Your task to perform on an android device: Search for seafood restaurants on Google Maps Image 0: 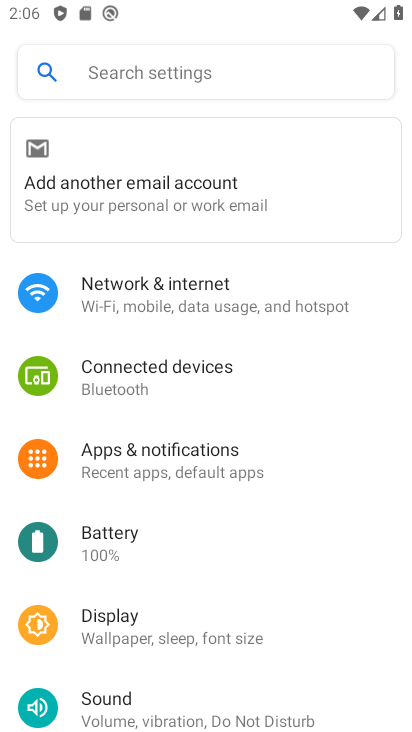
Step 0: press home button
Your task to perform on an android device: Search for seafood restaurants on Google Maps Image 1: 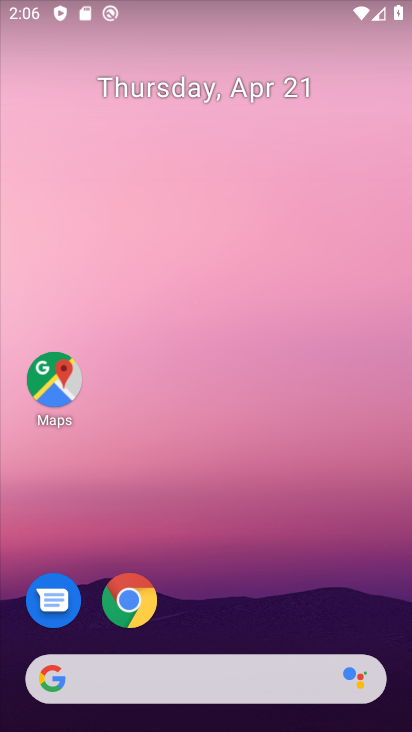
Step 1: click (50, 375)
Your task to perform on an android device: Search for seafood restaurants on Google Maps Image 2: 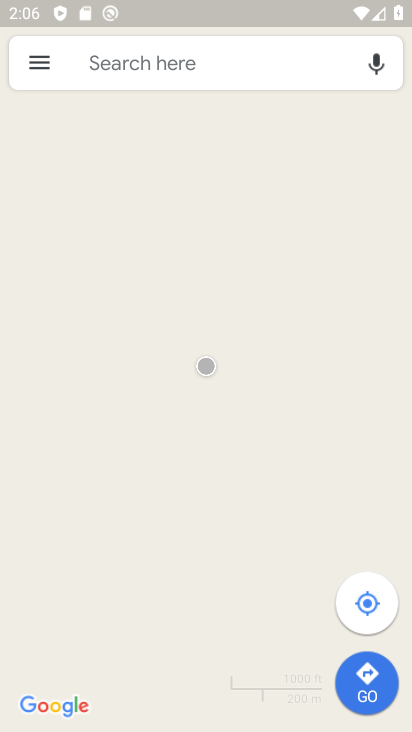
Step 2: click (225, 68)
Your task to perform on an android device: Search for seafood restaurants on Google Maps Image 3: 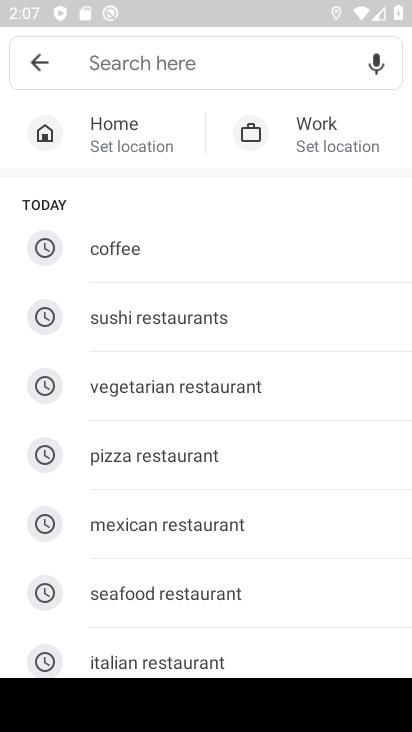
Step 3: type "seafood restaurants"
Your task to perform on an android device: Search for seafood restaurants on Google Maps Image 4: 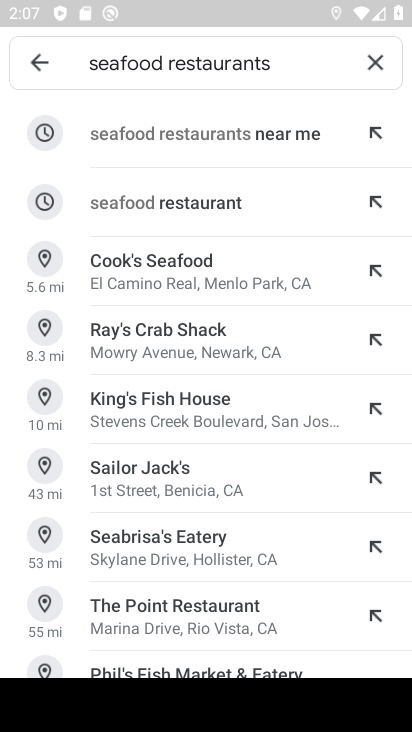
Step 4: press enter
Your task to perform on an android device: Search for seafood restaurants on Google Maps Image 5: 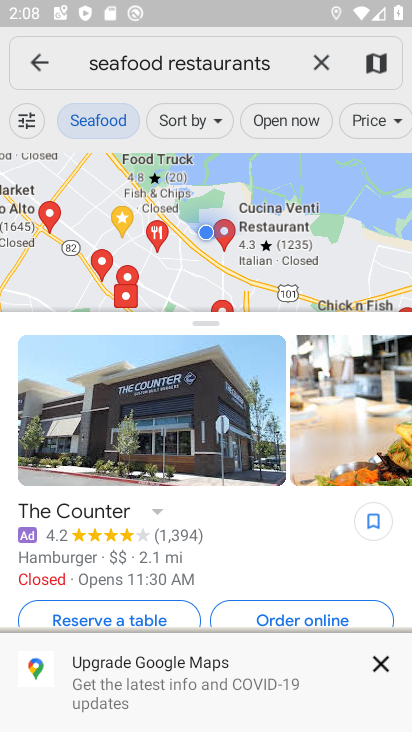
Step 5: task complete